Your task to perform on an android device: turn off location history Image 0: 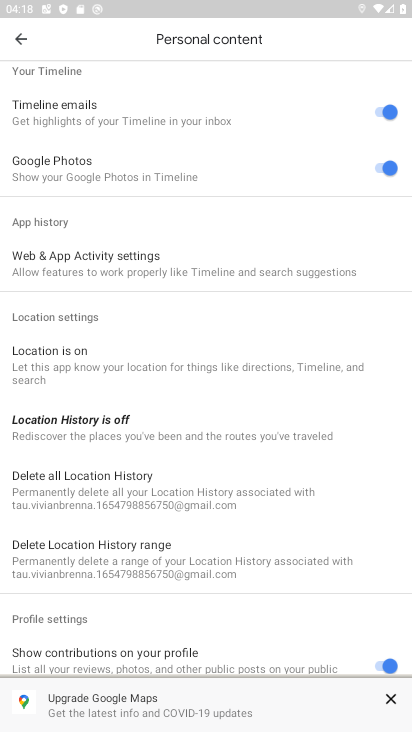
Step 0: press home button
Your task to perform on an android device: turn off location history Image 1: 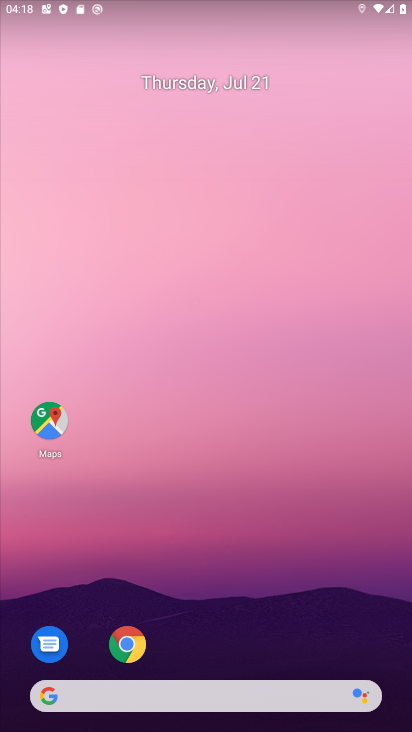
Step 1: click (48, 420)
Your task to perform on an android device: turn off location history Image 2: 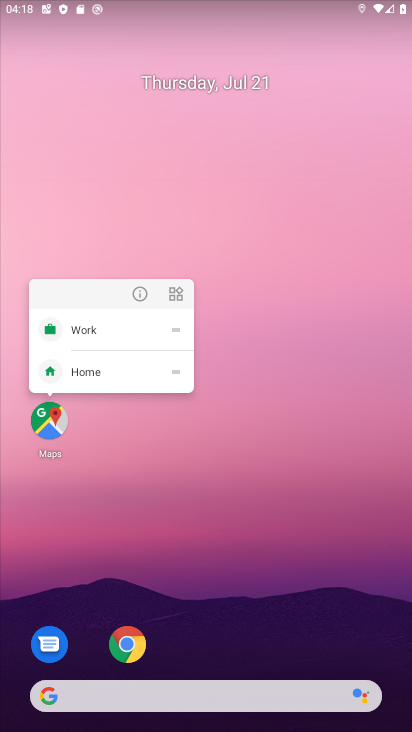
Step 2: click (49, 421)
Your task to perform on an android device: turn off location history Image 3: 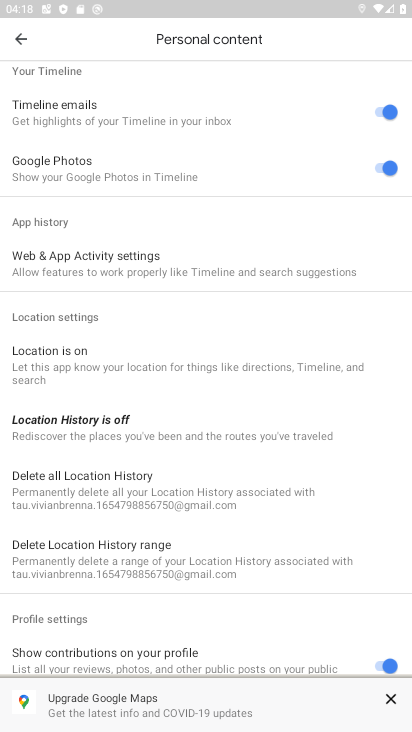
Step 3: click (98, 427)
Your task to perform on an android device: turn off location history Image 4: 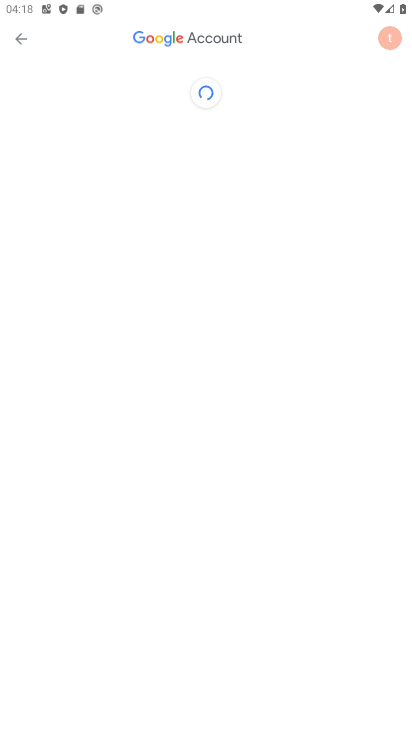
Step 4: click (70, 428)
Your task to perform on an android device: turn off location history Image 5: 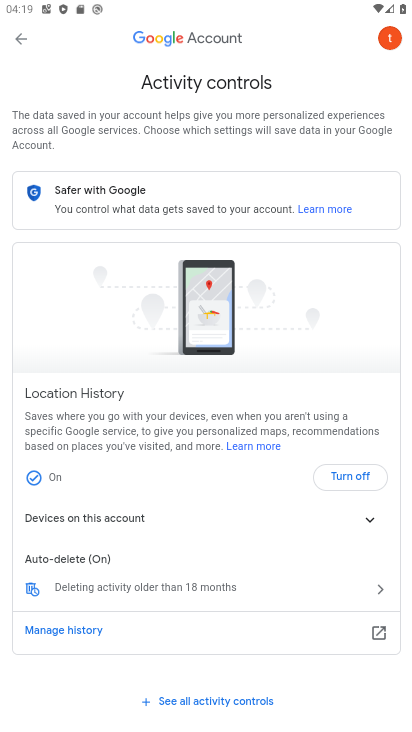
Step 5: click (351, 483)
Your task to perform on an android device: turn off location history Image 6: 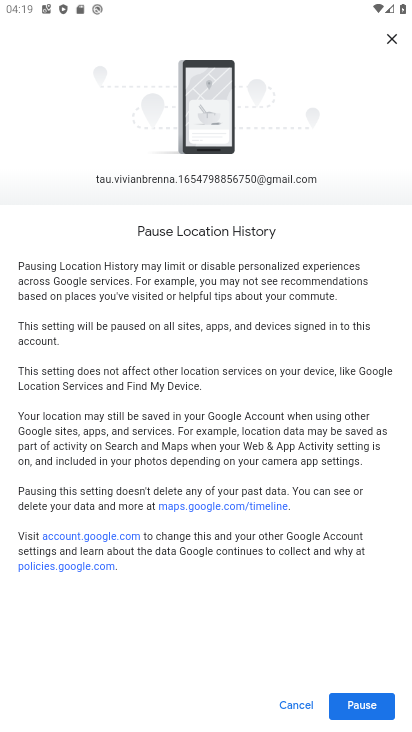
Step 6: drag from (256, 461) to (249, 108)
Your task to perform on an android device: turn off location history Image 7: 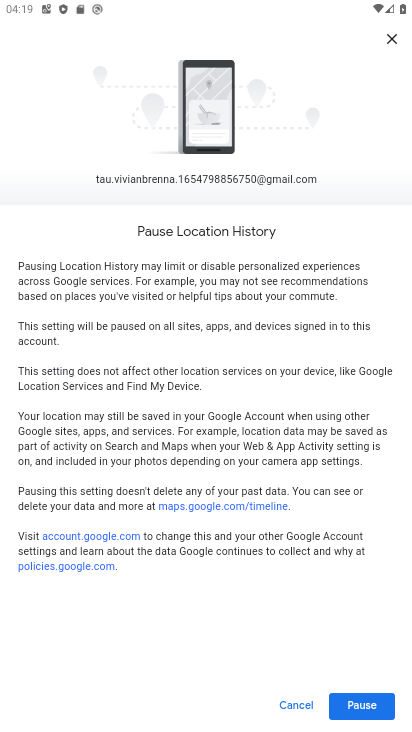
Step 7: click (372, 708)
Your task to perform on an android device: turn off location history Image 8: 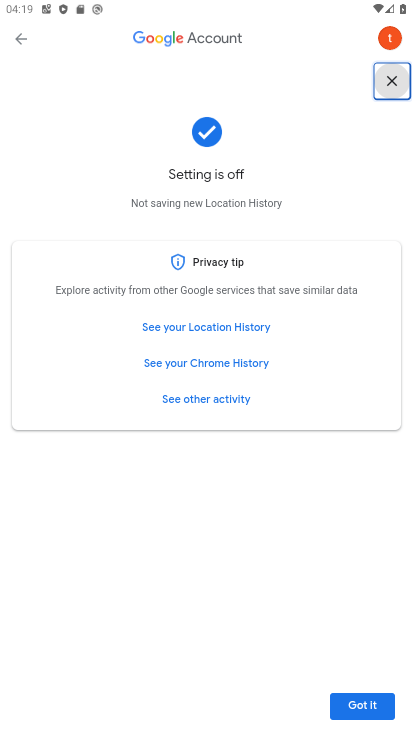
Step 8: click (372, 708)
Your task to perform on an android device: turn off location history Image 9: 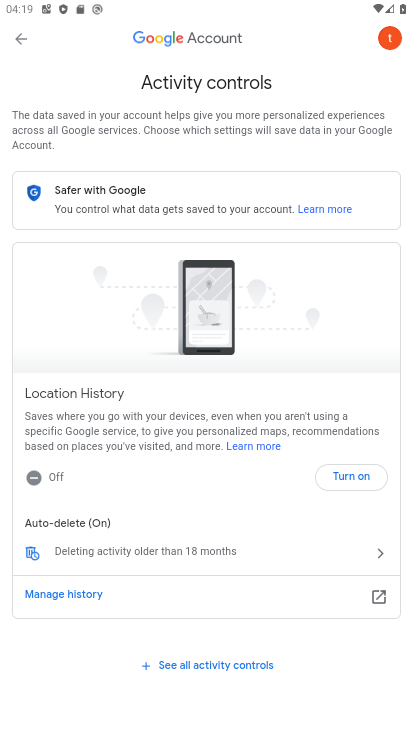
Step 9: task complete